Your task to perform on an android device: Set the phone to "Do not disturb". Image 0: 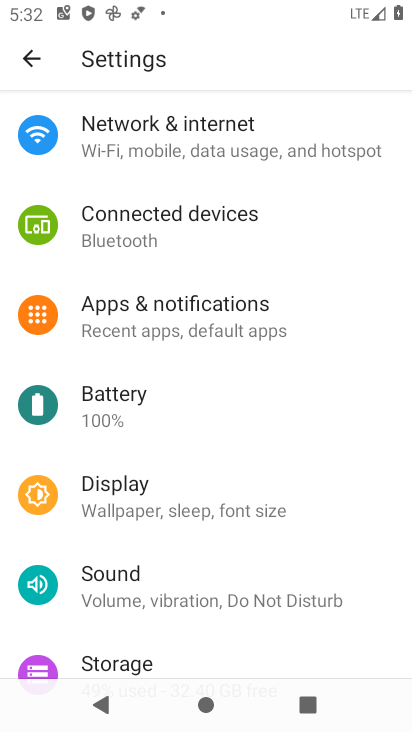
Step 0: click (214, 573)
Your task to perform on an android device: Set the phone to "Do not disturb". Image 1: 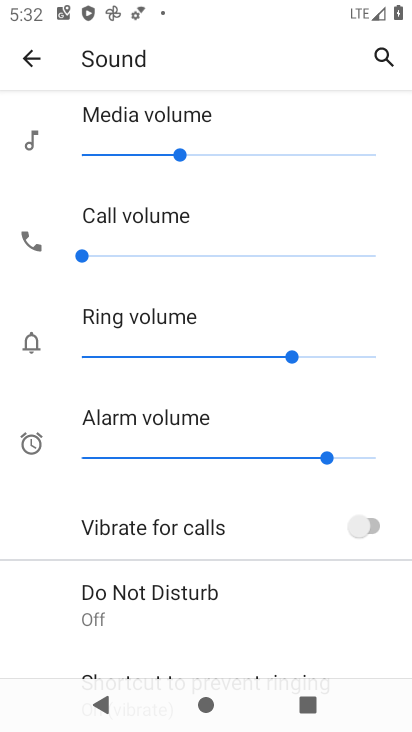
Step 1: drag from (186, 610) to (205, 234)
Your task to perform on an android device: Set the phone to "Do not disturb". Image 2: 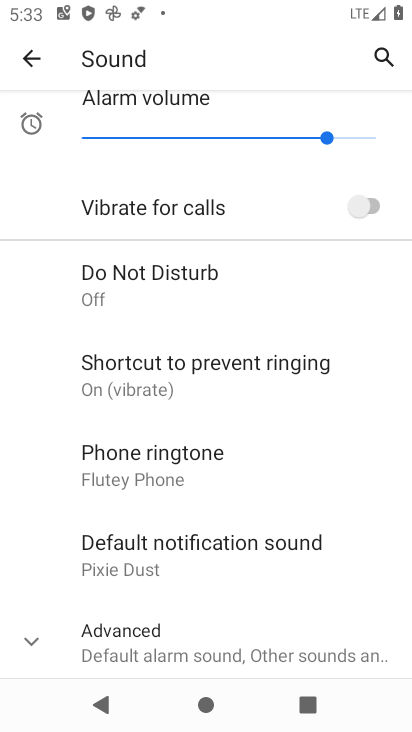
Step 2: click (184, 277)
Your task to perform on an android device: Set the phone to "Do not disturb". Image 3: 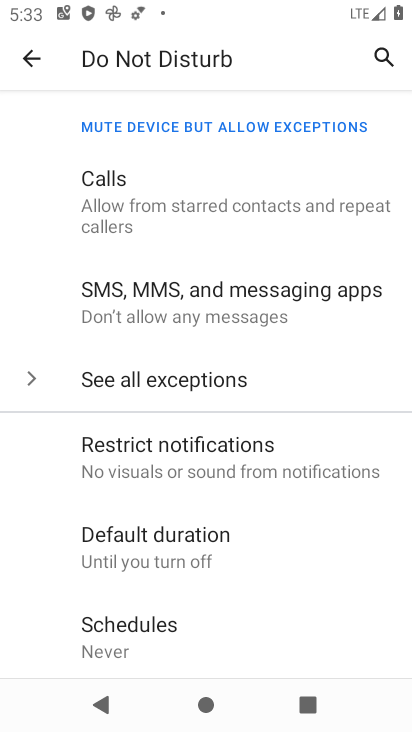
Step 3: drag from (233, 551) to (276, 225)
Your task to perform on an android device: Set the phone to "Do not disturb". Image 4: 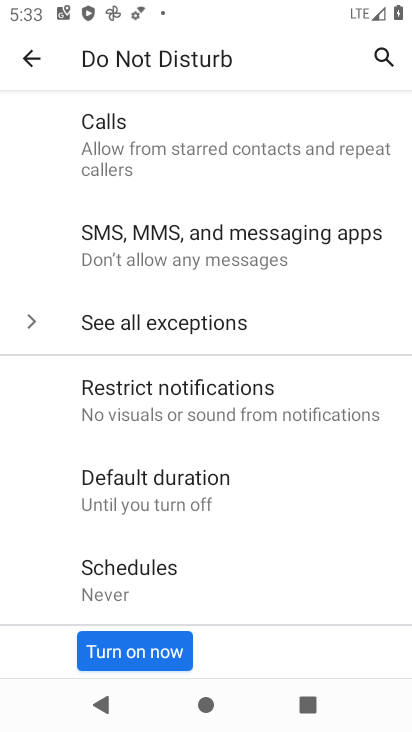
Step 4: click (141, 635)
Your task to perform on an android device: Set the phone to "Do not disturb". Image 5: 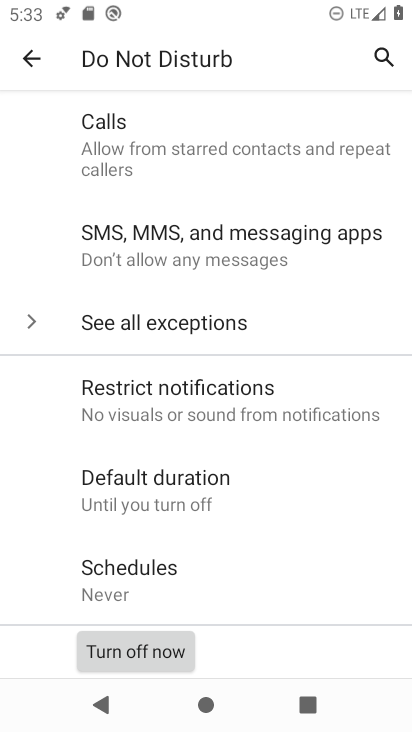
Step 5: task complete